Your task to perform on an android device: Open Reddit.com Image 0: 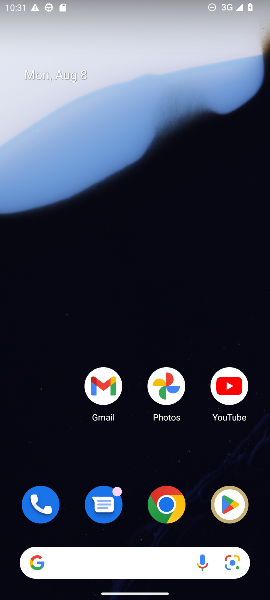
Step 0: click (169, 515)
Your task to perform on an android device: Open Reddit.com Image 1: 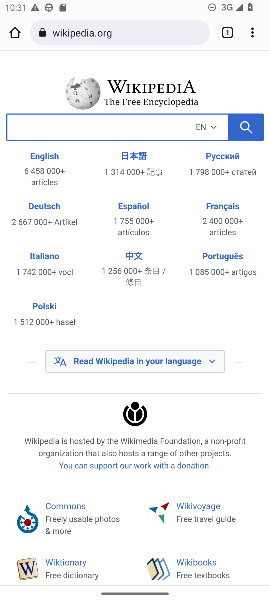
Step 1: click (124, 23)
Your task to perform on an android device: Open Reddit.com Image 2: 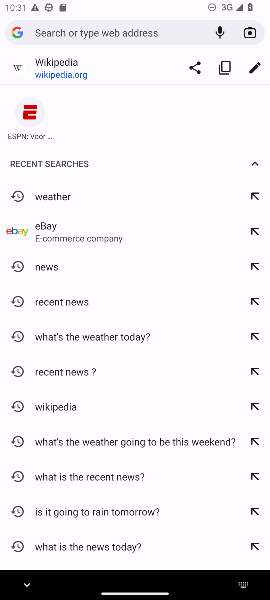
Step 2: type "Reddit"
Your task to perform on an android device: Open Reddit.com Image 3: 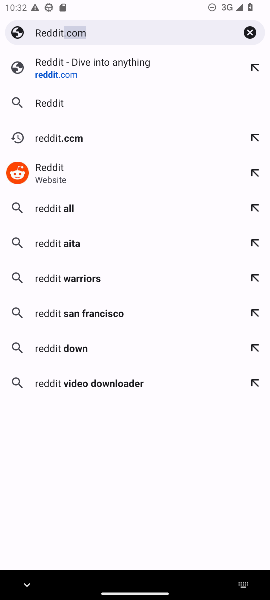
Step 3: click (76, 67)
Your task to perform on an android device: Open Reddit.com Image 4: 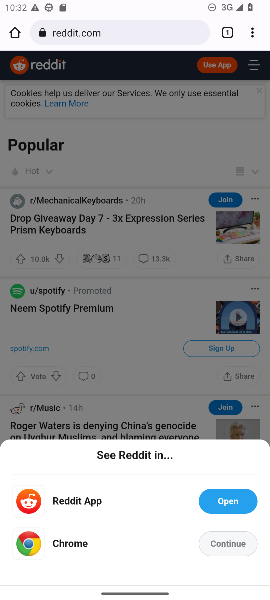
Step 4: task complete